Your task to perform on an android device: Open Google Chrome and click the shortcut for Amazon.com Image 0: 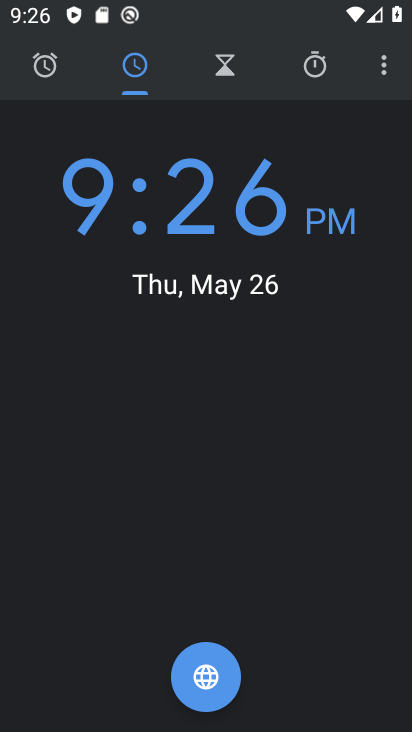
Step 0: press home button
Your task to perform on an android device: Open Google Chrome and click the shortcut for Amazon.com Image 1: 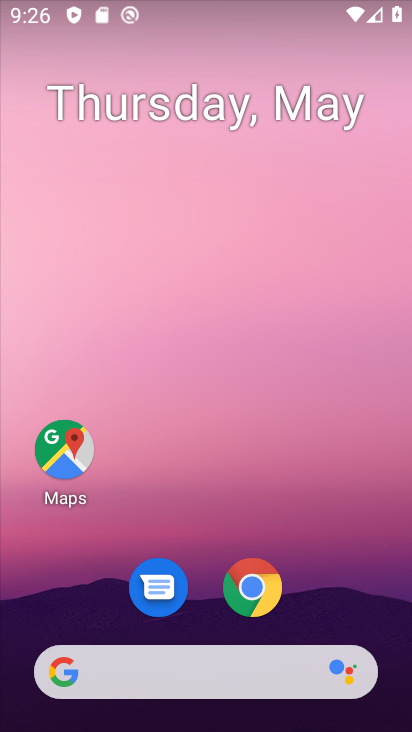
Step 1: click (249, 599)
Your task to perform on an android device: Open Google Chrome and click the shortcut for Amazon.com Image 2: 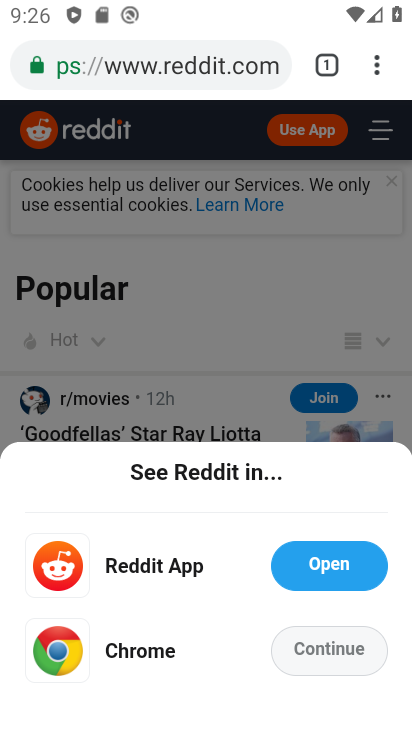
Step 2: click (380, 63)
Your task to perform on an android device: Open Google Chrome and click the shortcut for Amazon.com Image 3: 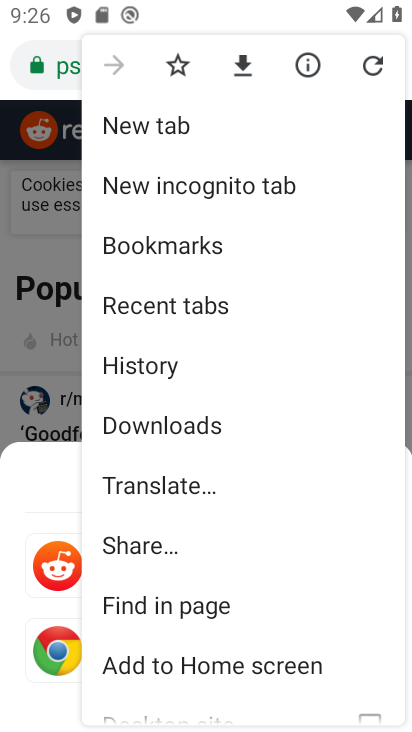
Step 3: click (170, 123)
Your task to perform on an android device: Open Google Chrome and click the shortcut for Amazon.com Image 4: 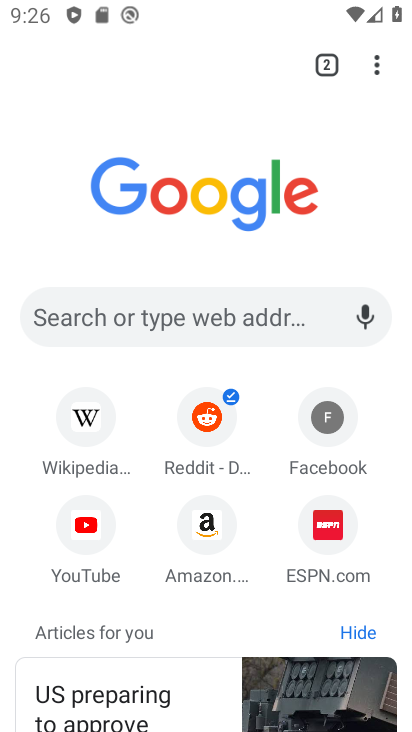
Step 4: click (197, 531)
Your task to perform on an android device: Open Google Chrome and click the shortcut for Amazon.com Image 5: 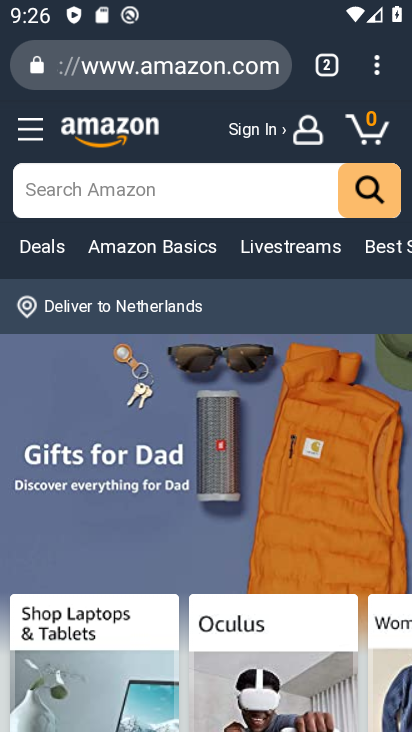
Step 5: task complete